Your task to perform on an android device: Go to Google Image 0: 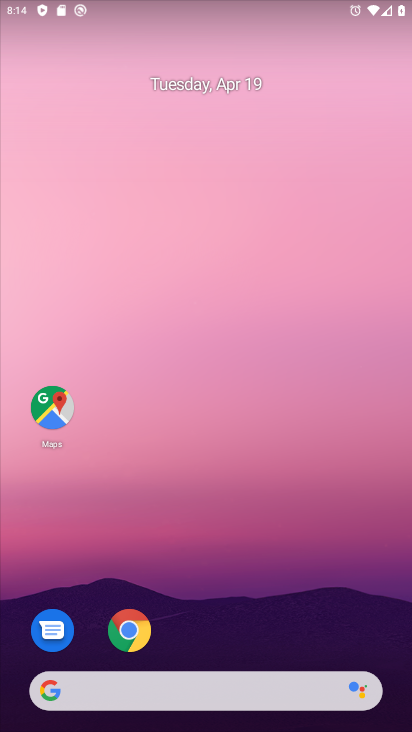
Step 0: drag from (269, 596) to (284, 299)
Your task to perform on an android device: Go to Google Image 1: 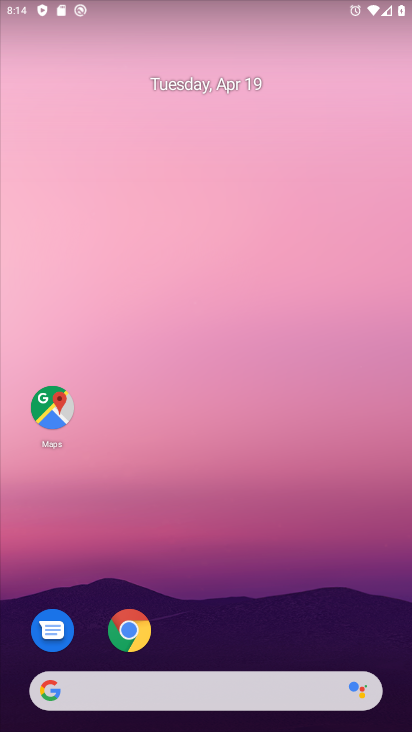
Step 1: drag from (223, 630) to (264, 97)
Your task to perform on an android device: Go to Google Image 2: 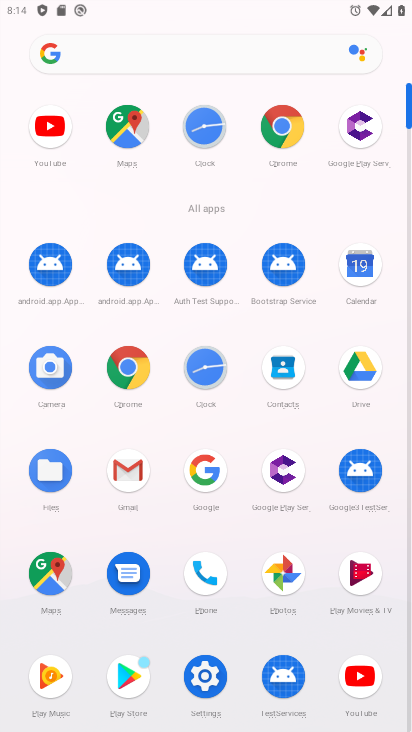
Step 2: click (211, 482)
Your task to perform on an android device: Go to Google Image 3: 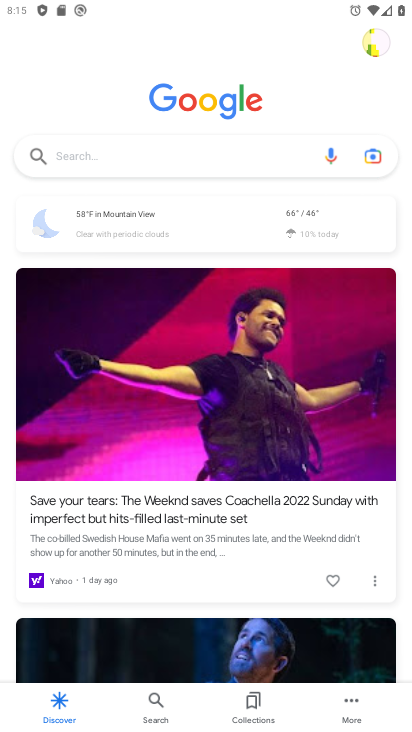
Step 3: task complete